Your task to perform on an android device: Open calendar and show me the second week of next month Image 0: 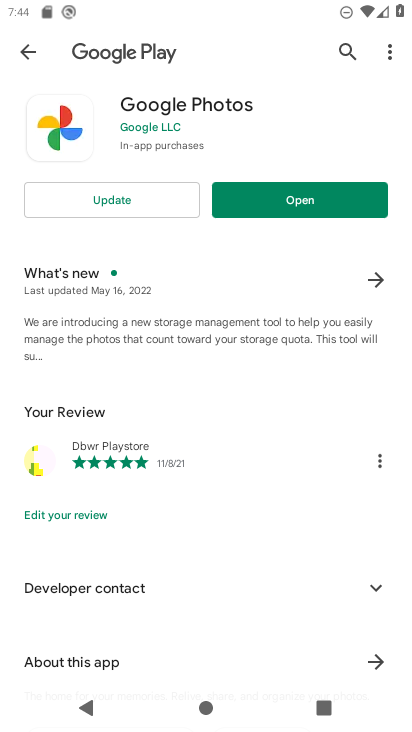
Step 0: press home button
Your task to perform on an android device: Open calendar and show me the second week of next month Image 1: 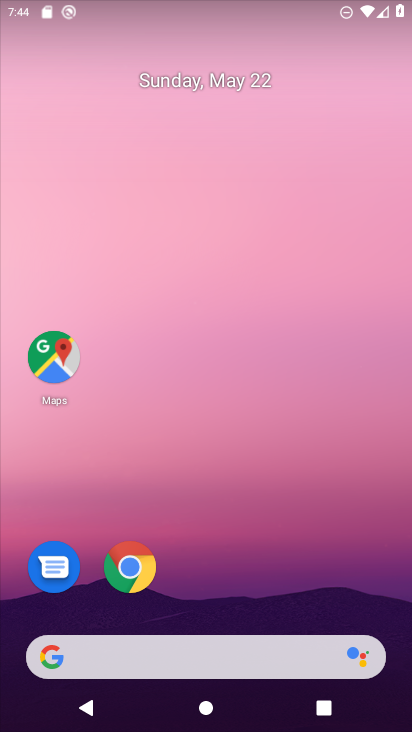
Step 1: drag from (201, 575) to (338, 65)
Your task to perform on an android device: Open calendar and show me the second week of next month Image 2: 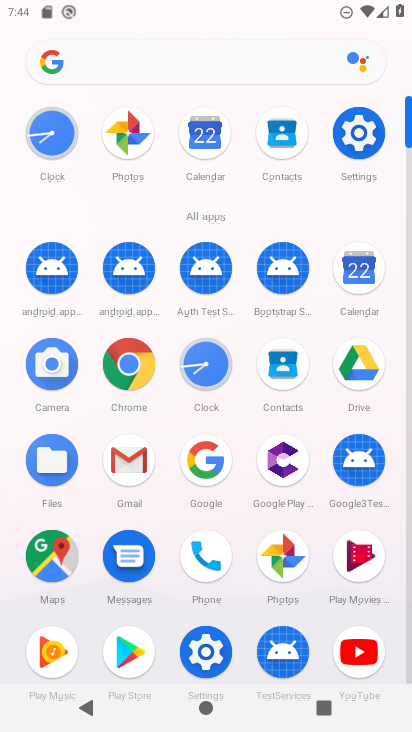
Step 2: click (361, 278)
Your task to perform on an android device: Open calendar and show me the second week of next month Image 3: 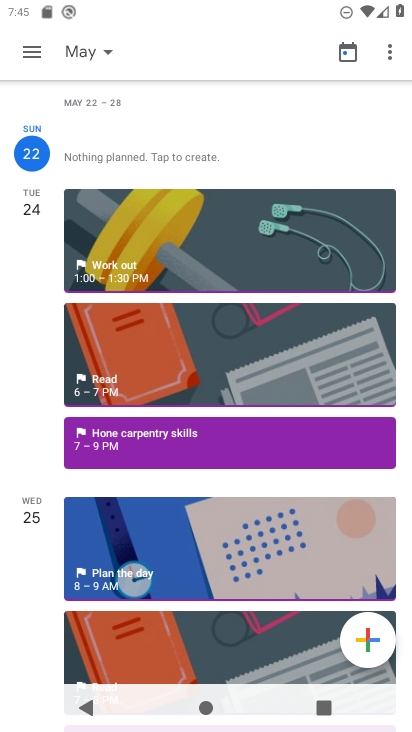
Step 3: click (76, 52)
Your task to perform on an android device: Open calendar and show me the second week of next month Image 4: 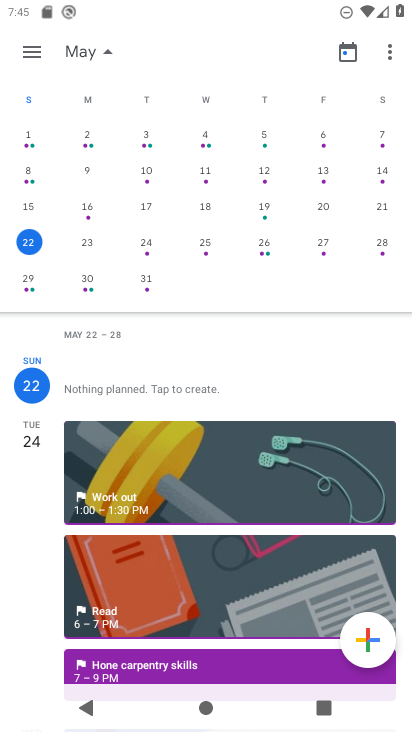
Step 4: drag from (359, 220) to (79, 185)
Your task to perform on an android device: Open calendar and show me the second week of next month Image 5: 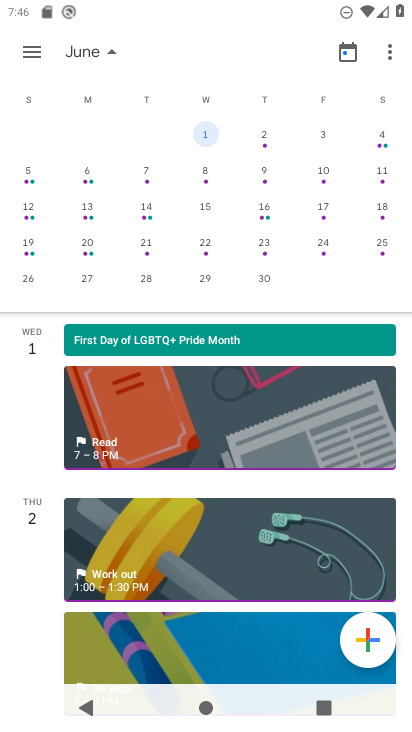
Step 5: click (82, 169)
Your task to perform on an android device: Open calendar and show me the second week of next month Image 6: 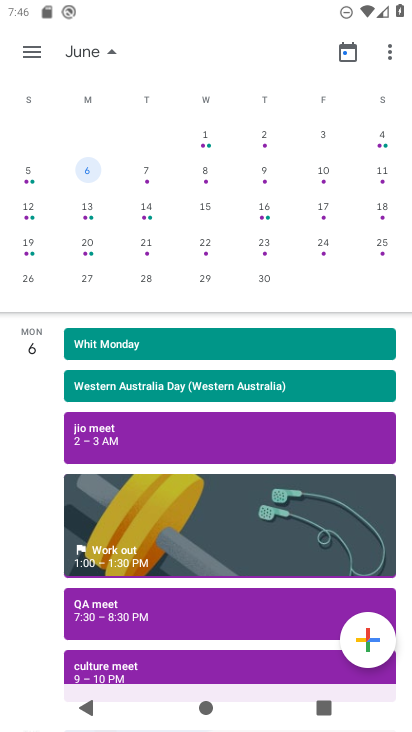
Step 6: task complete